Your task to perform on an android device: Open Youtube and go to the subscriptions tab Image 0: 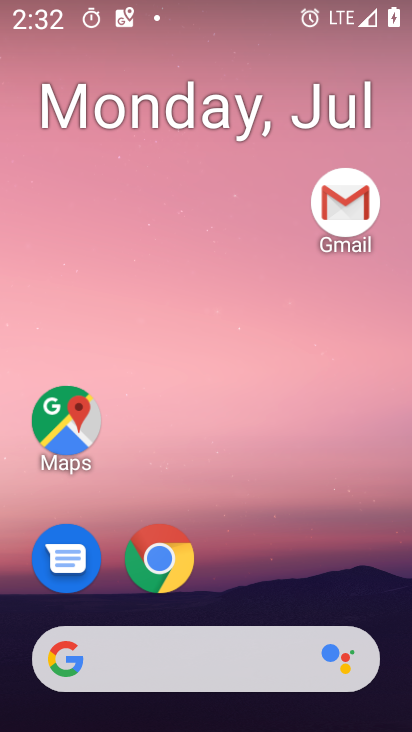
Step 0: drag from (330, 576) to (319, 96)
Your task to perform on an android device: Open Youtube and go to the subscriptions tab Image 1: 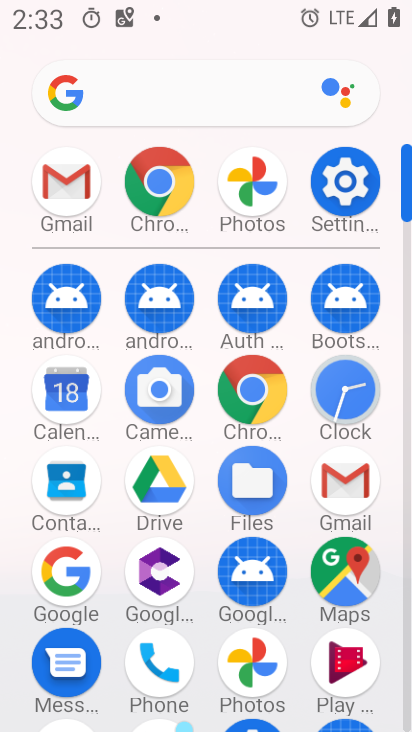
Step 1: drag from (386, 573) to (374, 310)
Your task to perform on an android device: Open Youtube and go to the subscriptions tab Image 2: 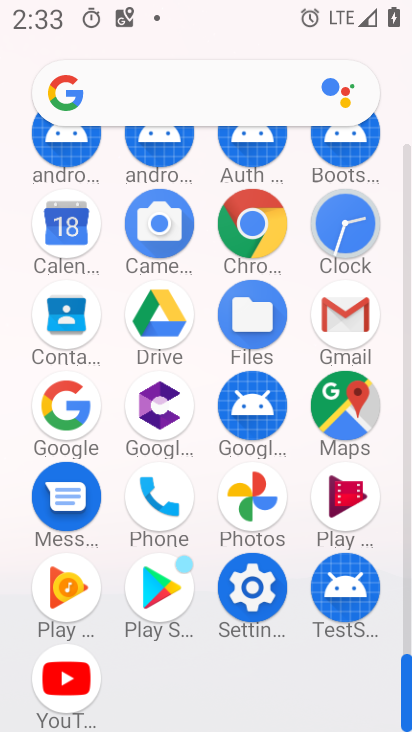
Step 2: click (89, 668)
Your task to perform on an android device: Open Youtube and go to the subscriptions tab Image 3: 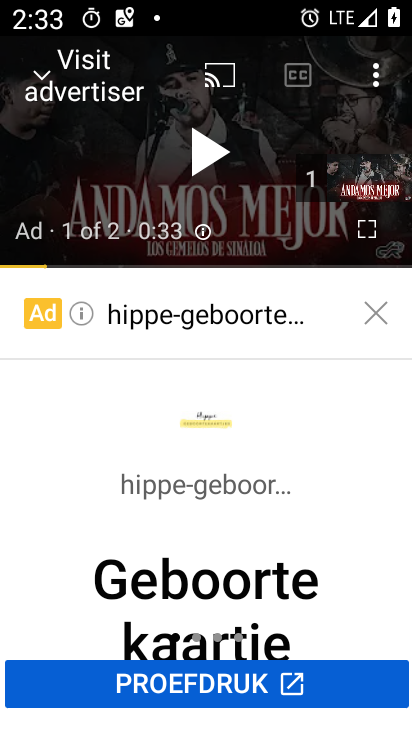
Step 3: press back button
Your task to perform on an android device: Open Youtube and go to the subscriptions tab Image 4: 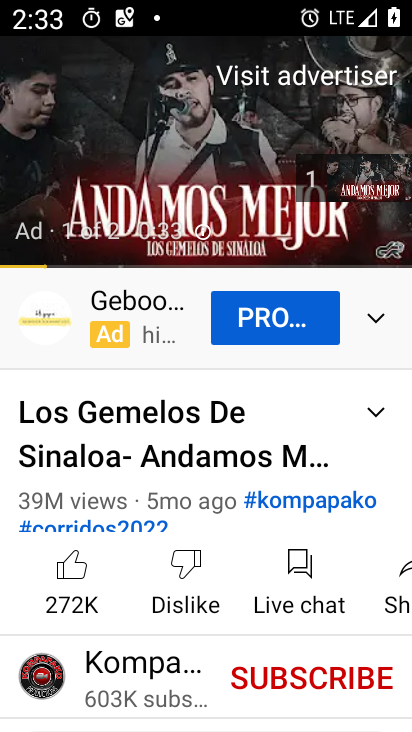
Step 4: press back button
Your task to perform on an android device: Open Youtube and go to the subscriptions tab Image 5: 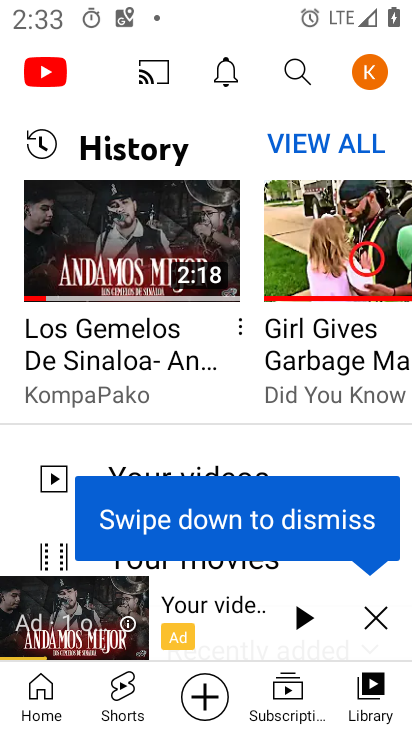
Step 5: click (287, 688)
Your task to perform on an android device: Open Youtube and go to the subscriptions tab Image 6: 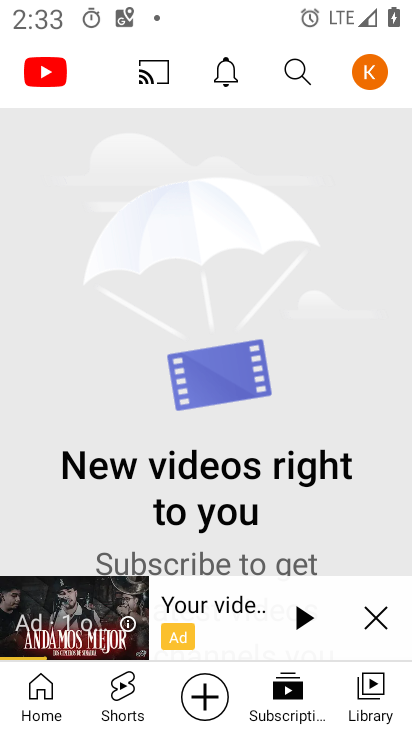
Step 6: task complete